Your task to perform on an android device: open a bookmark in the chrome app Image 0: 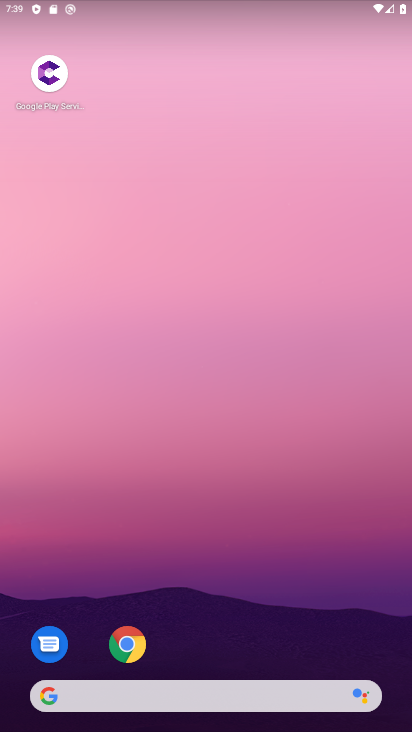
Step 0: click (124, 645)
Your task to perform on an android device: open a bookmark in the chrome app Image 1: 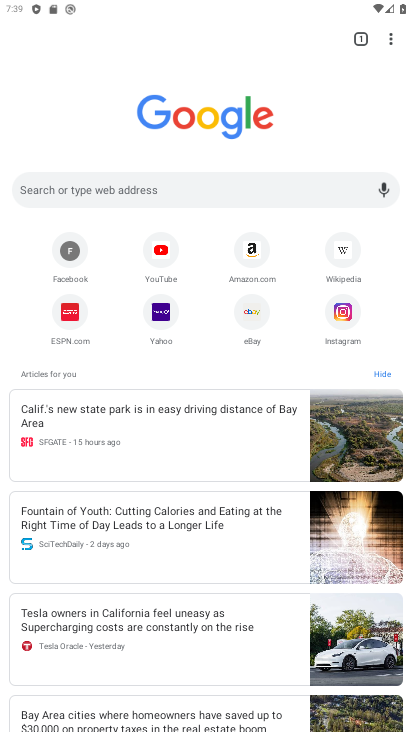
Step 1: click (390, 39)
Your task to perform on an android device: open a bookmark in the chrome app Image 2: 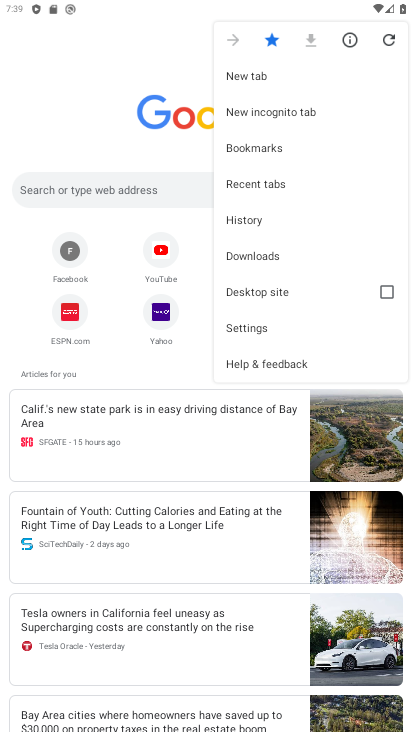
Step 2: click (271, 149)
Your task to perform on an android device: open a bookmark in the chrome app Image 3: 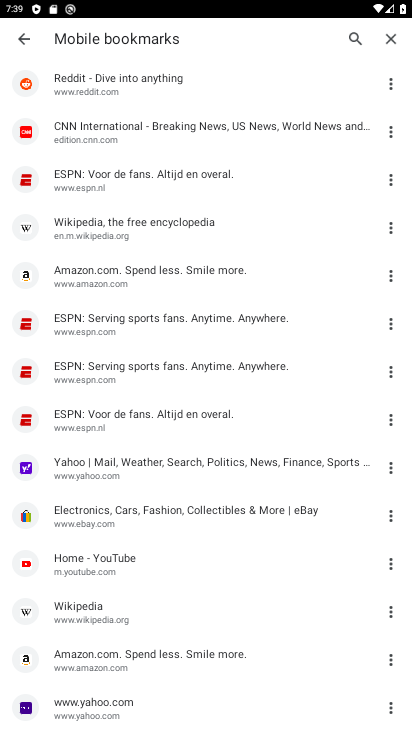
Step 3: click (198, 284)
Your task to perform on an android device: open a bookmark in the chrome app Image 4: 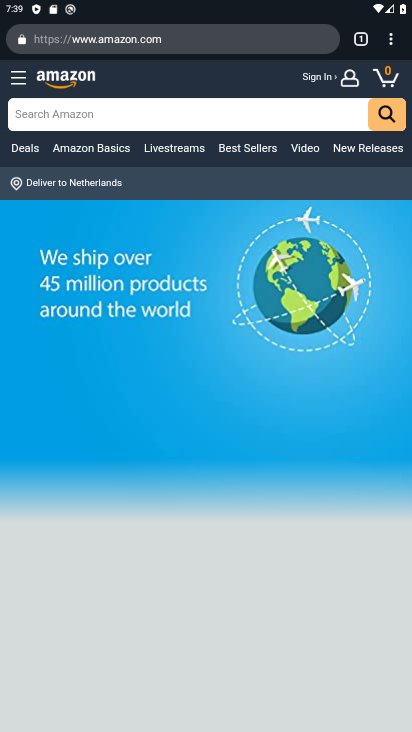
Step 4: task complete